Your task to perform on an android device: Open location settings Image 0: 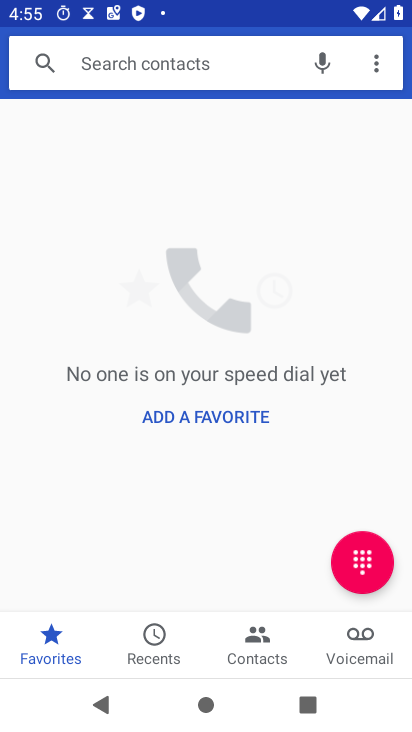
Step 0: press back button
Your task to perform on an android device: Open location settings Image 1: 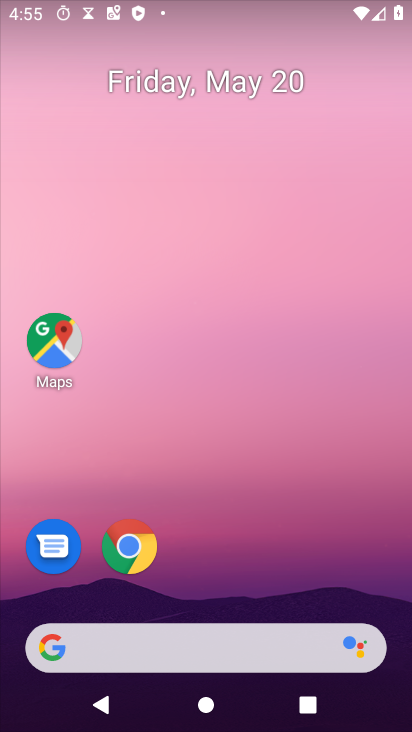
Step 1: drag from (237, 561) to (159, 103)
Your task to perform on an android device: Open location settings Image 2: 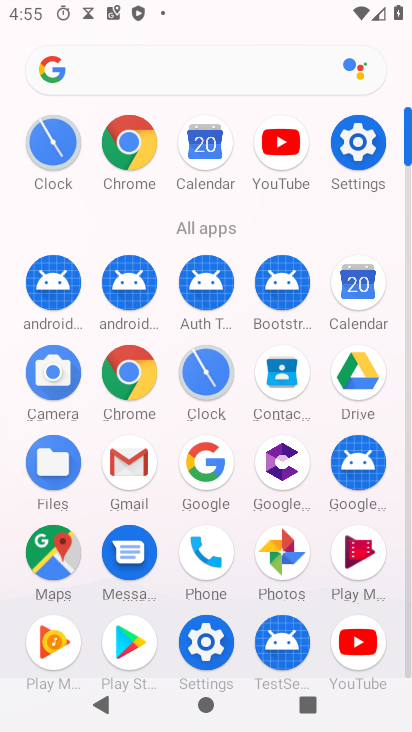
Step 2: click (361, 139)
Your task to perform on an android device: Open location settings Image 3: 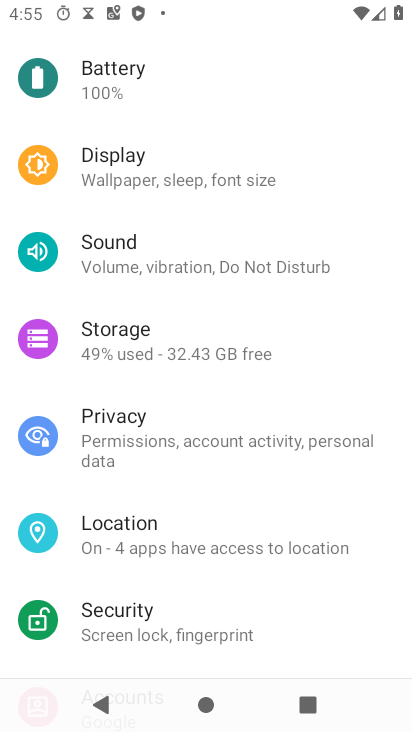
Step 3: click (150, 530)
Your task to perform on an android device: Open location settings Image 4: 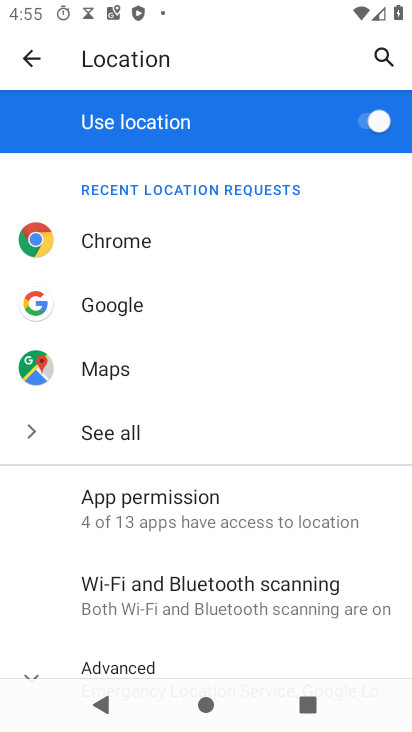
Step 4: task complete